Your task to perform on an android device: View the shopping cart on amazon.com. Image 0: 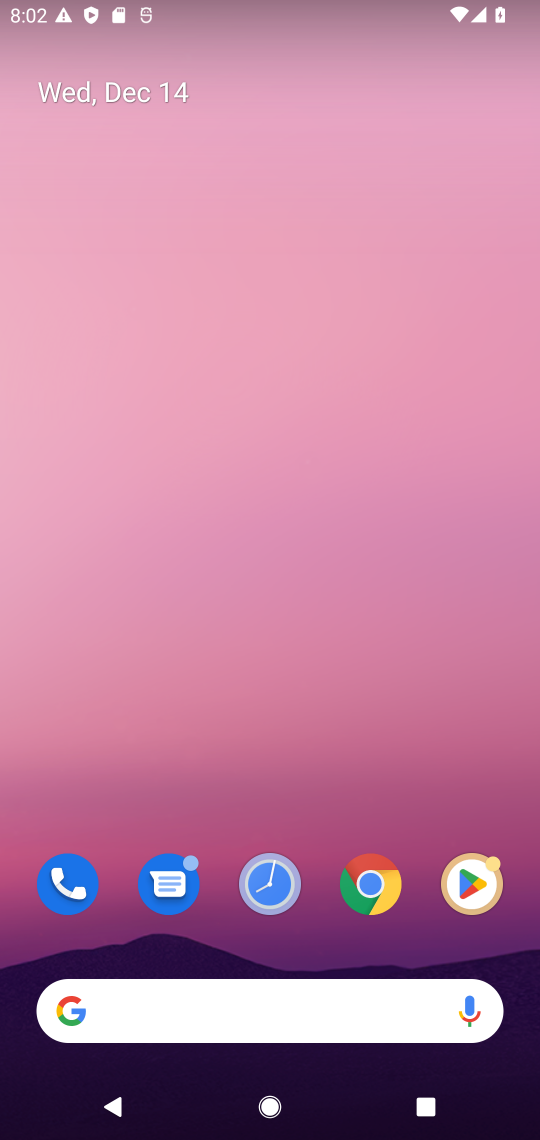
Step 0: click (363, 873)
Your task to perform on an android device: View the shopping cart on amazon.com. Image 1: 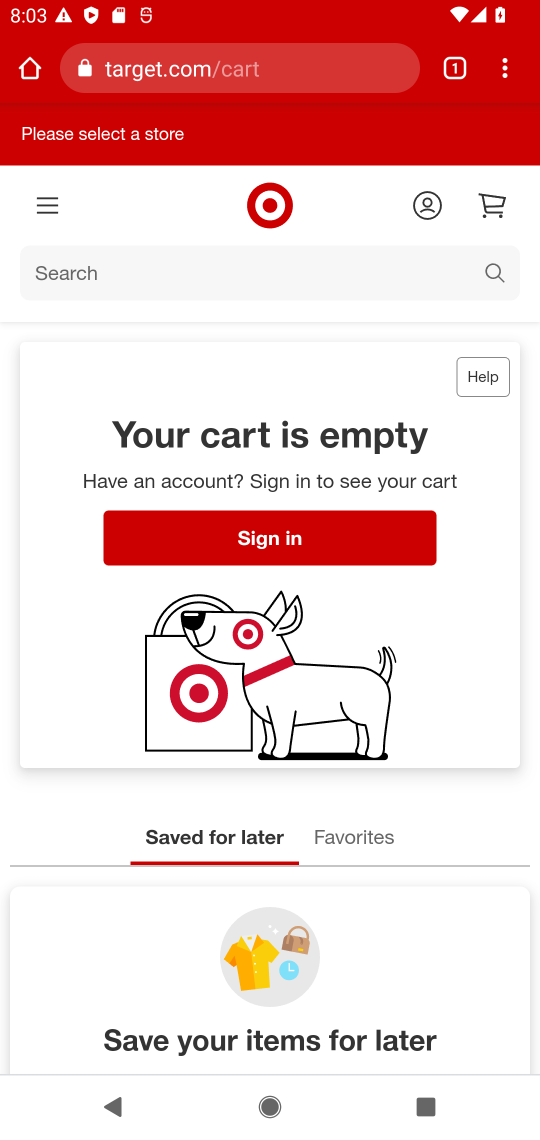
Step 1: click (460, 70)
Your task to perform on an android device: View the shopping cart on amazon.com. Image 2: 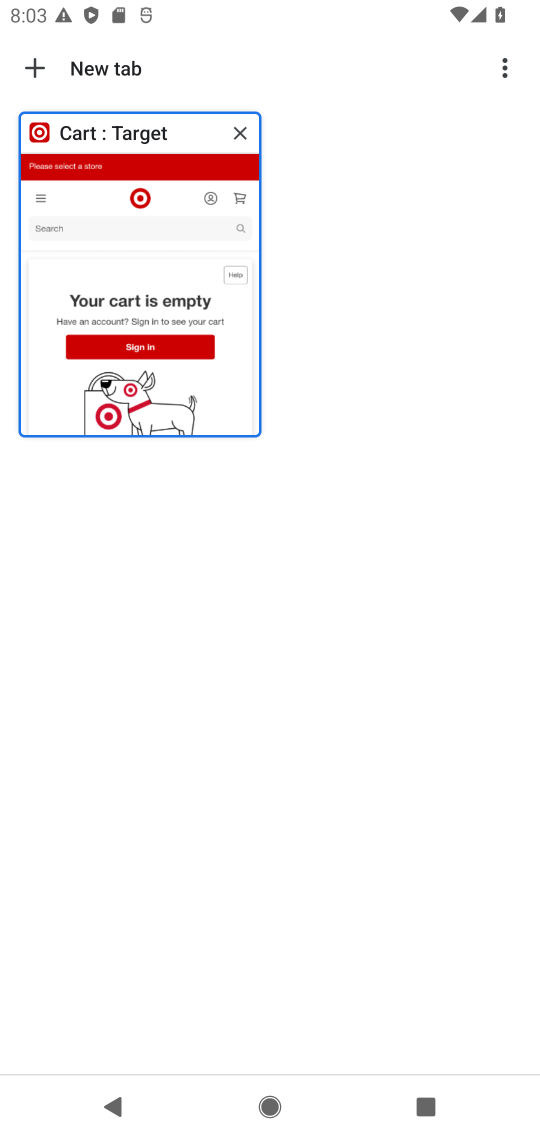
Step 2: click (28, 70)
Your task to perform on an android device: View the shopping cart on amazon.com. Image 3: 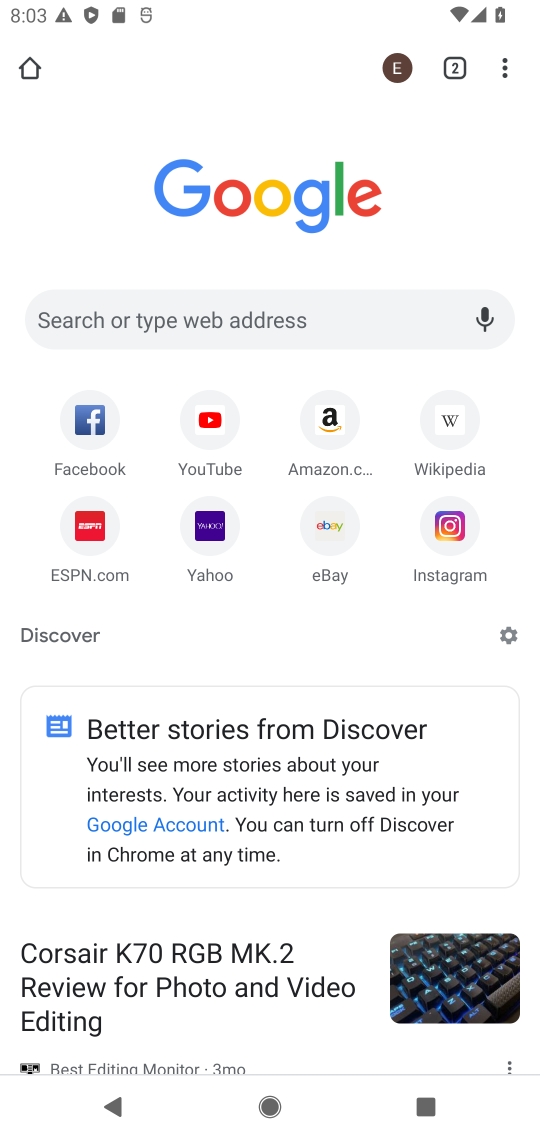
Step 3: click (325, 433)
Your task to perform on an android device: View the shopping cart on amazon.com. Image 4: 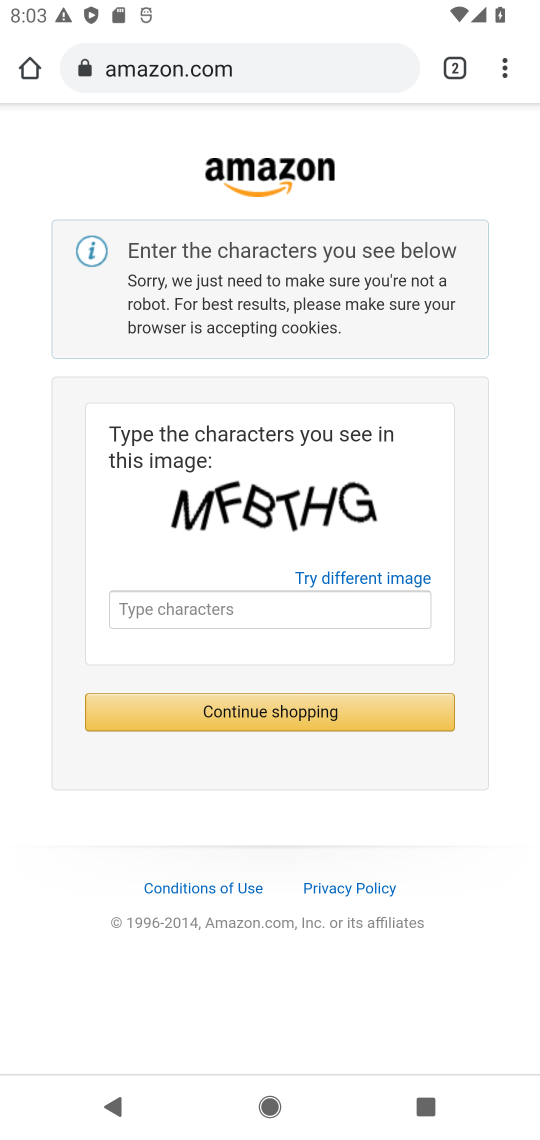
Step 4: click (216, 609)
Your task to perform on an android device: View the shopping cart on amazon.com. Image 5: 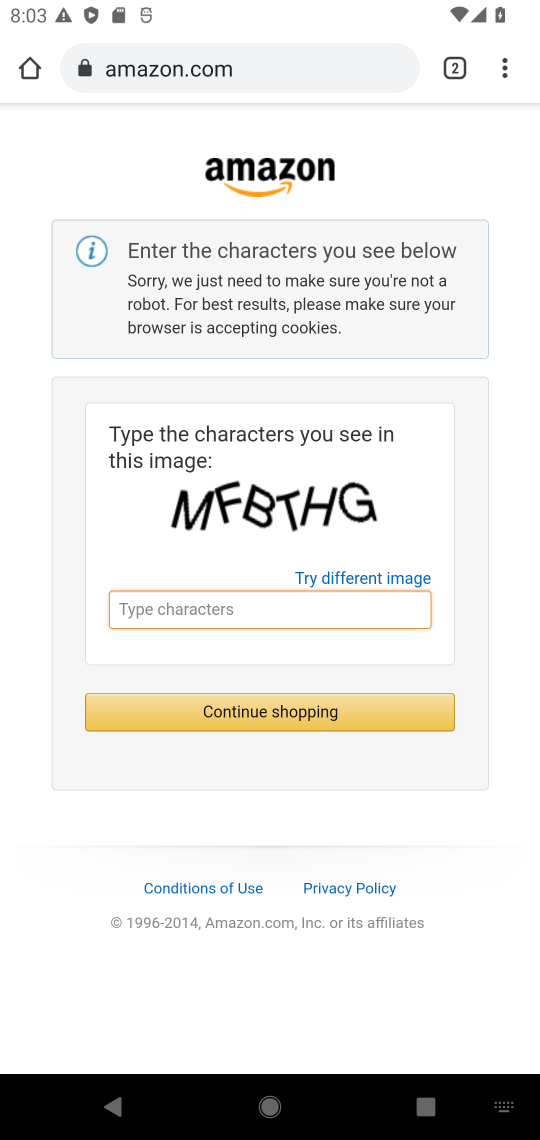
Step 5: type "MFBTHG"
Your task to perform on an android device: View the shopping cart on amazon.com. Image 6: 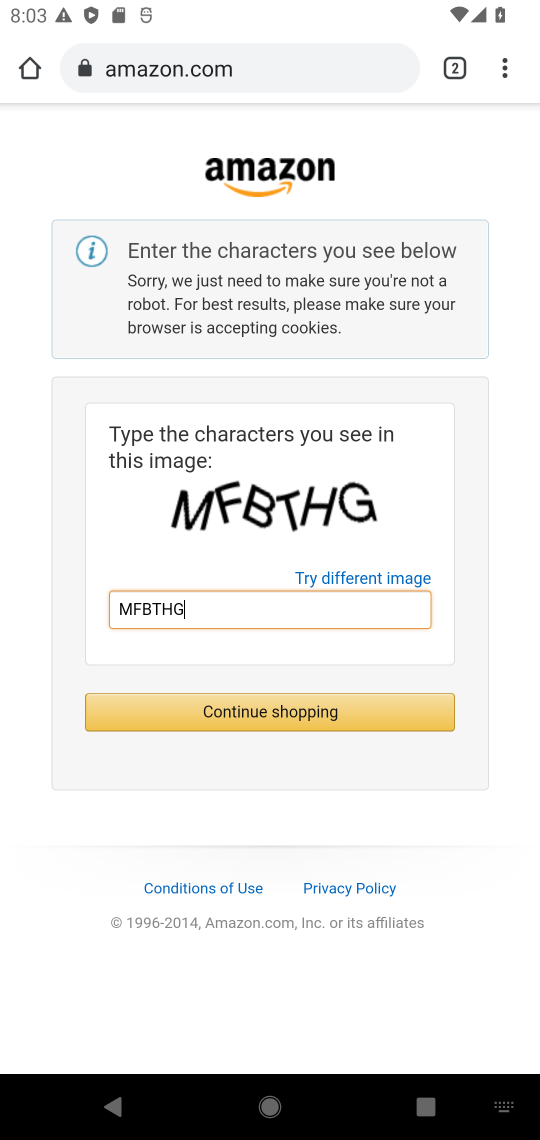
Step 6: click (301, 710)
Your task to perform on an android device: View the shopping cart on amazon.com. Image 7: 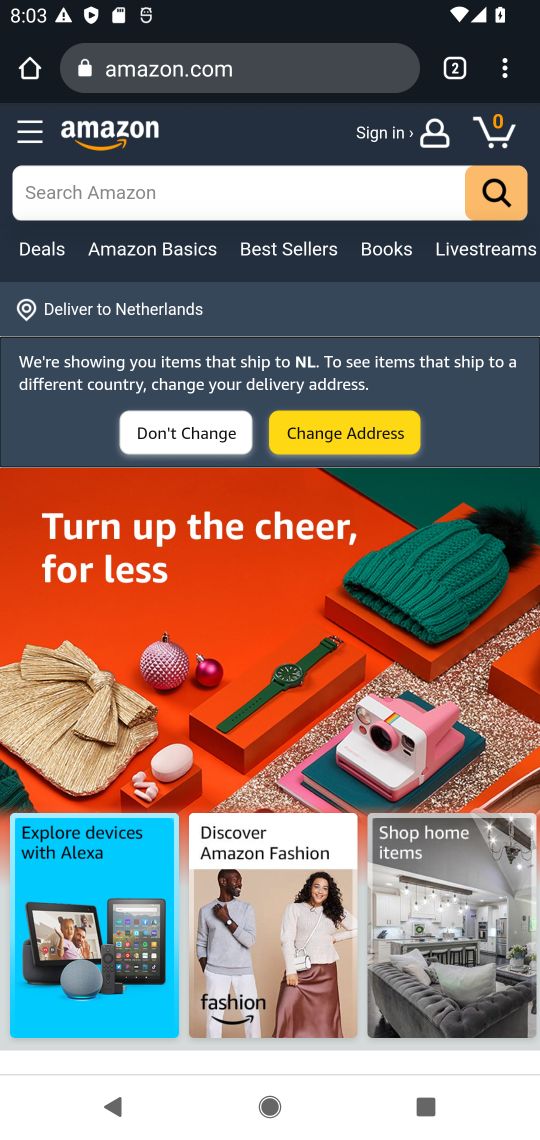
Step 7: click (500, 129)
Your task to perform on an android device: View the shopping cart on amazon.com. Image 8: 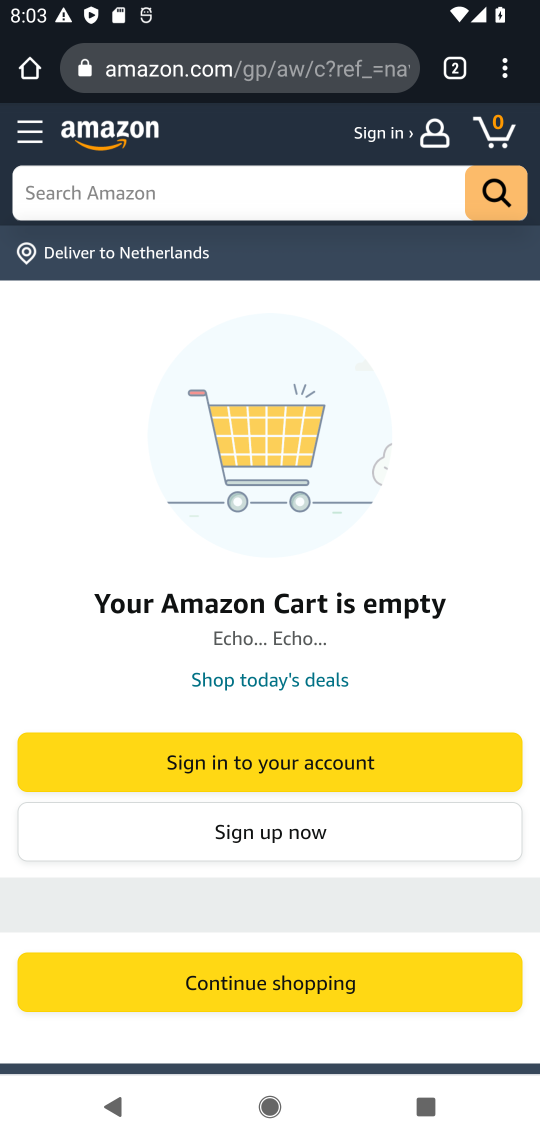
Step 8: task complete